Your task to perform on an android device: turn off location Image 0: 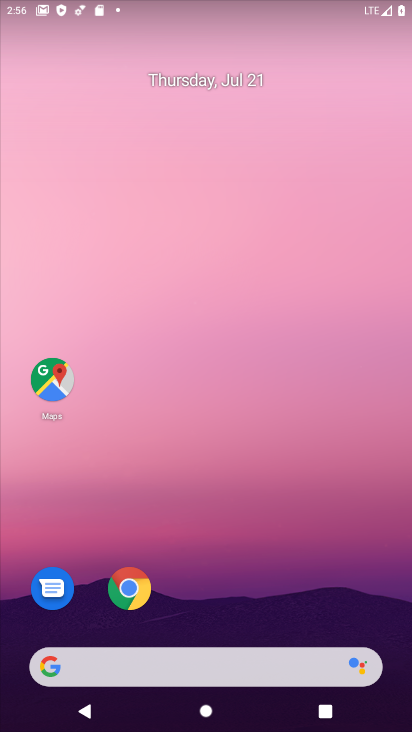
Step 0: drag from (271, 604) to (342, 1)
Your task to perform on an android device: turn off location Image 1: 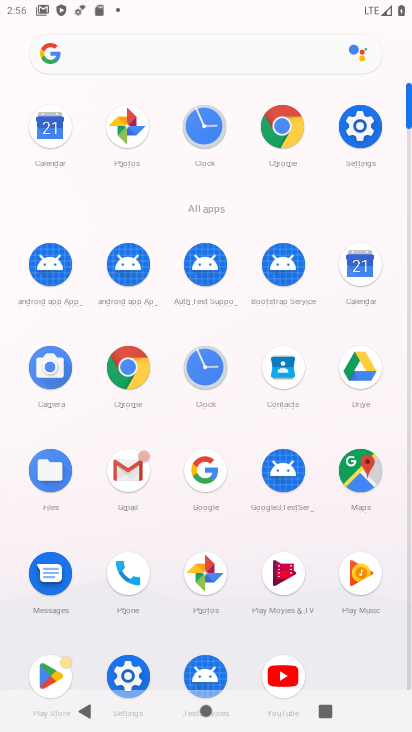
Step 1: click (352, 111)
Your task to perform on an android device: turn off location Image 2: 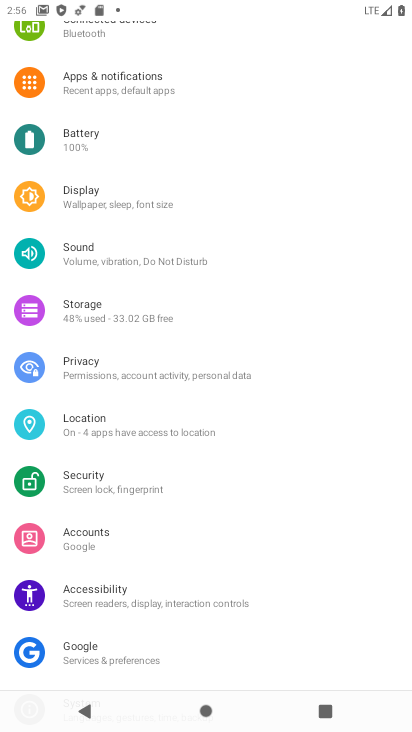
Step 2: click (135, 430)
Your task to perform on an android device: turn off location Image 3: 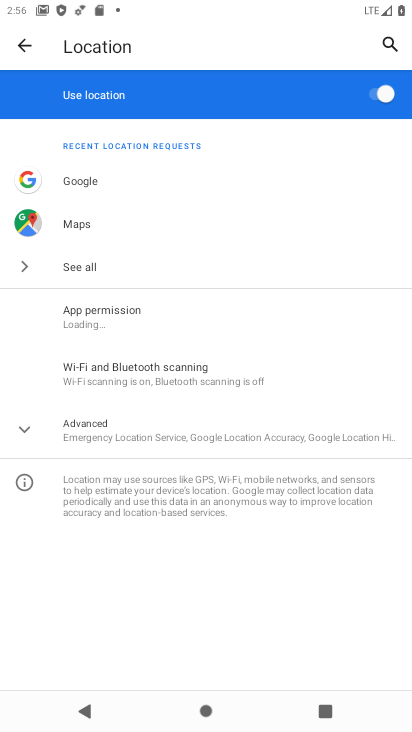
Step 3: click (373, 96)
Your task to perform on an android device: turn off location Image 4: 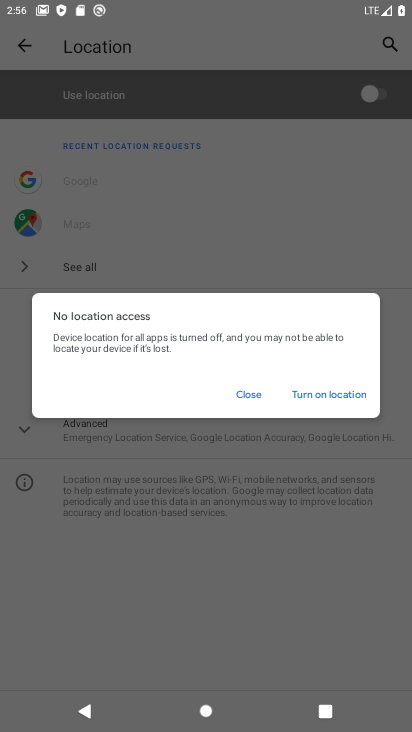
Step 4: task complete